Your task to perform on an android device: Open notification settings Image 0: 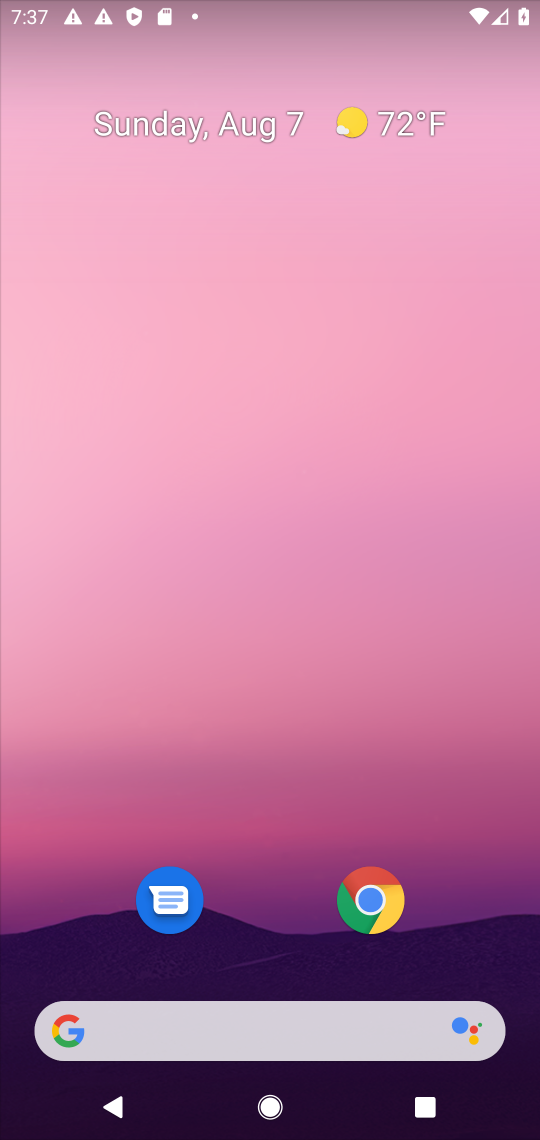
Step 0: drag from (247, 1030) to (353, 214)
Your task to perform on an android device: Open notification settings Image 1: 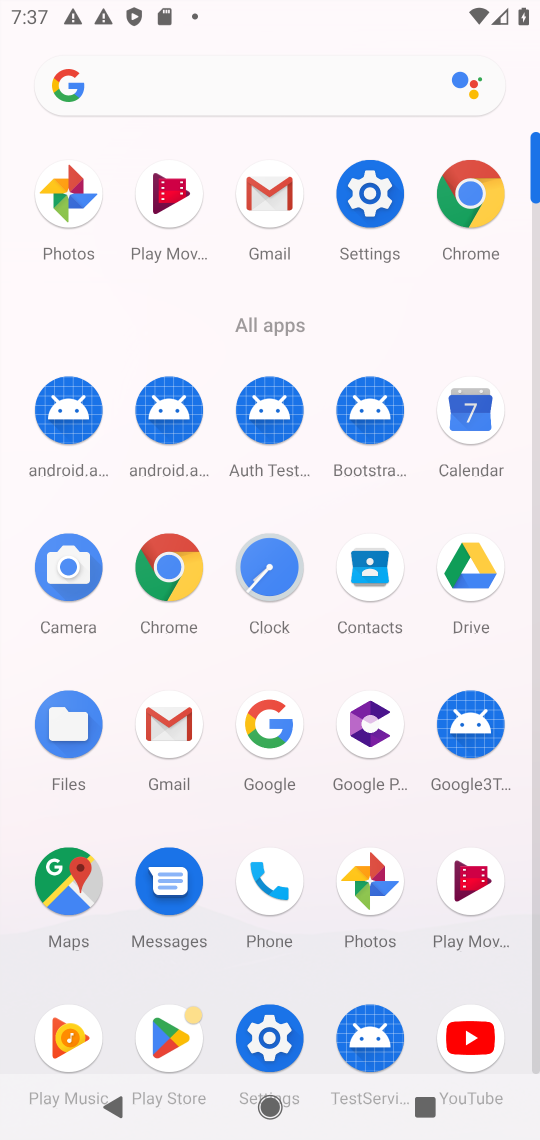
Step 1: click (376, 197)
Your task to perform on an android device: Open notification settings Image 2: 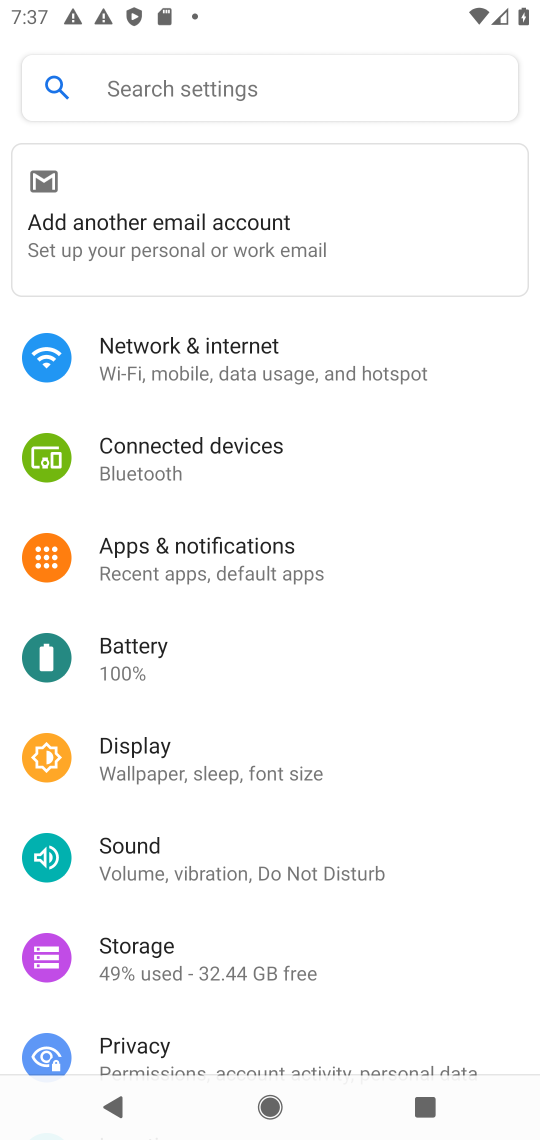
Step 2: click (215, 557)
Your task to perform on an android device: Open notification settings Image 3: 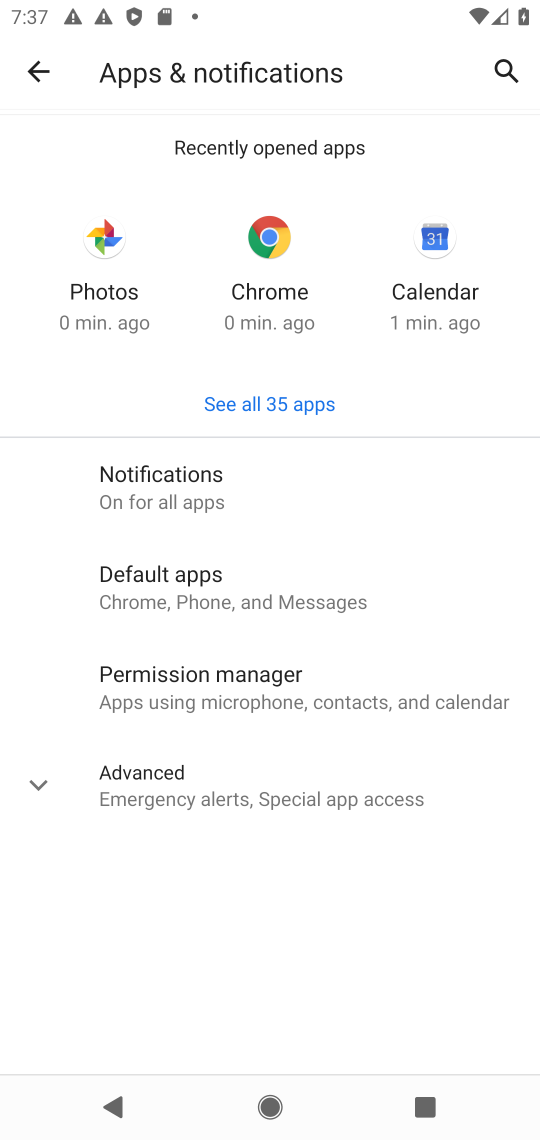
Step 3: click (162, 494)
Your task to perform on an android device: Open notification settings Image 4: 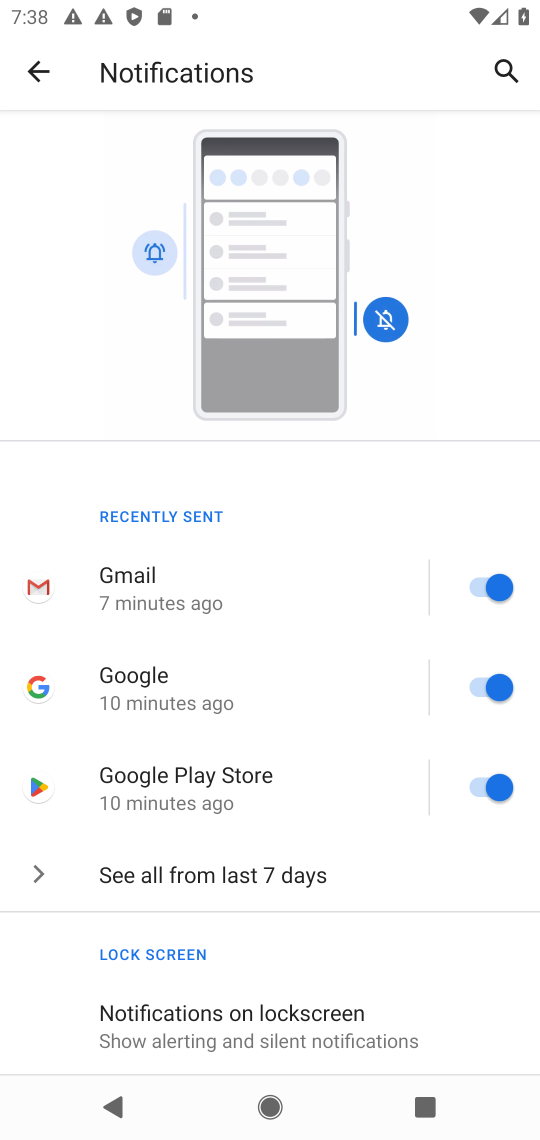
Step 4: task complete